Your task to perform on an android device: Search for pizza restaurants on Maps Image 0: 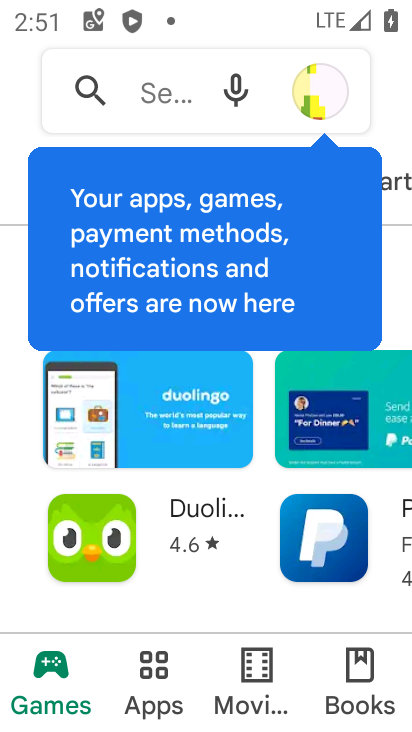
Step 0: press home button
Your task to perform on an android device: Search for pizza restaurants on Maps Image 1: 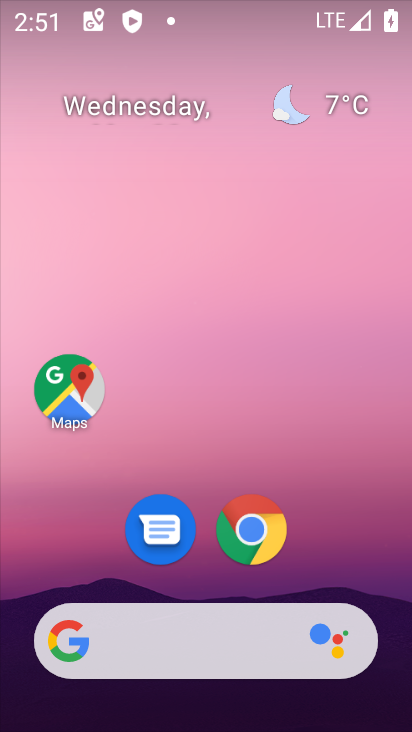
Step 1: drag from (368, 515) to (289, 102)
Your task to perform on an android device: Search for pizza restaurants on Maps Image 2: 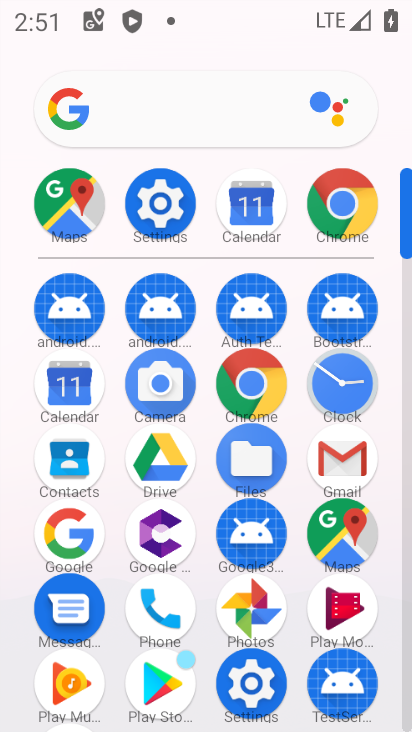
Step 2: click (333, 530)
Your task to perform on an android device: Search for pizza restaurants on Maps Image 3: 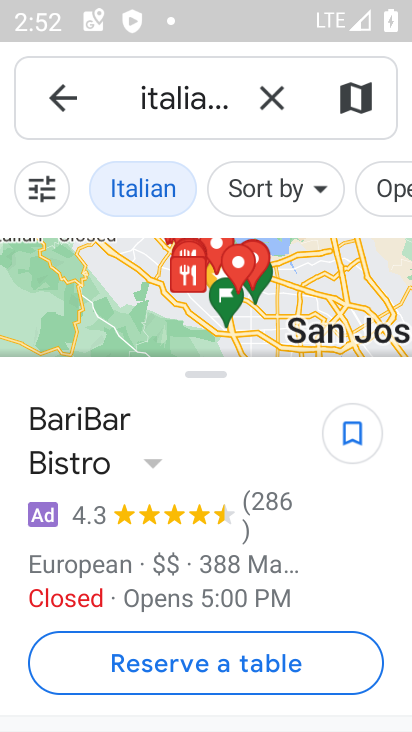
Step 3: click (260, 92)
Your task to perform on an android device: Search for pizza restaurants on Maps Image 4: 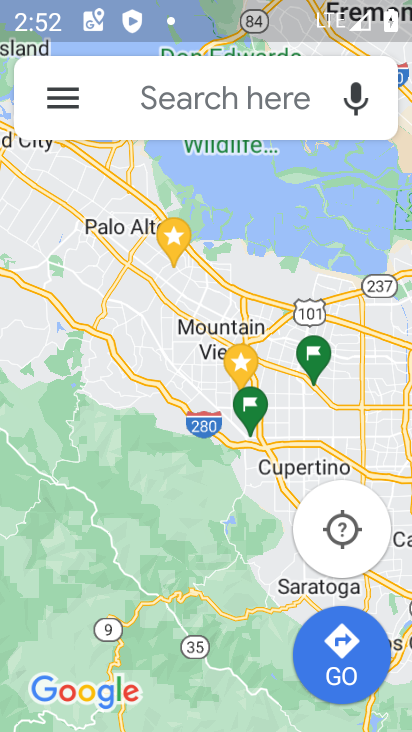
Step 4: click (247, 110)
Your task to perform on an android device: Search for pizza restaurants on Maps Image 5: 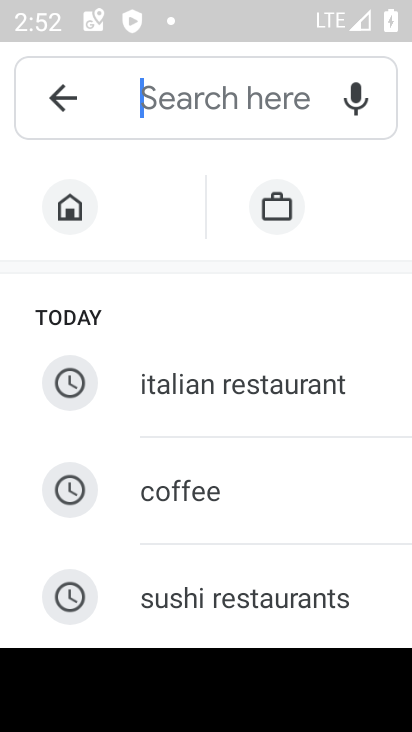
Step 5: drag from (299, 517) to (289, 171)
Your task to perform on an android device: Search for pizza restaurants on Maps Image 6: 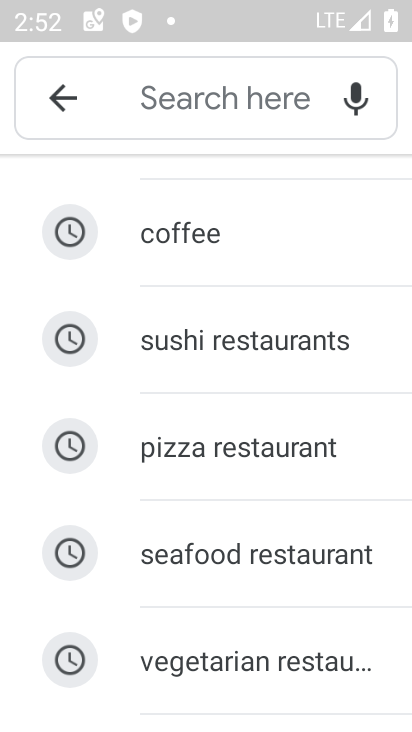
Step 6: click (245, 444)
Your task to perform on an android device: Search for pizza restaurants on Maps Image 7: 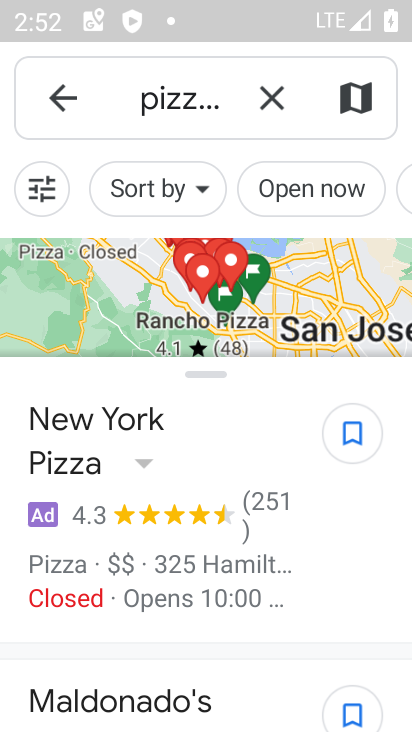
Step 7: task complete